Your task to perform on an android device: Open calendar and show me the third week of next month Image 0: 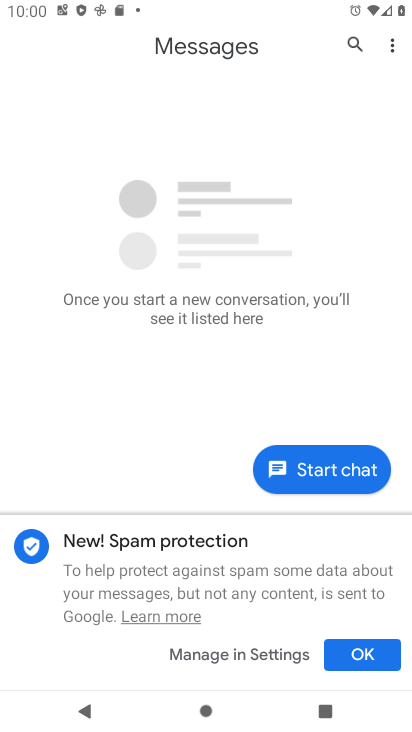
Step 0: press home button
Your task to perform on an android device: Open calendar and show me the third week of next month Image 1: 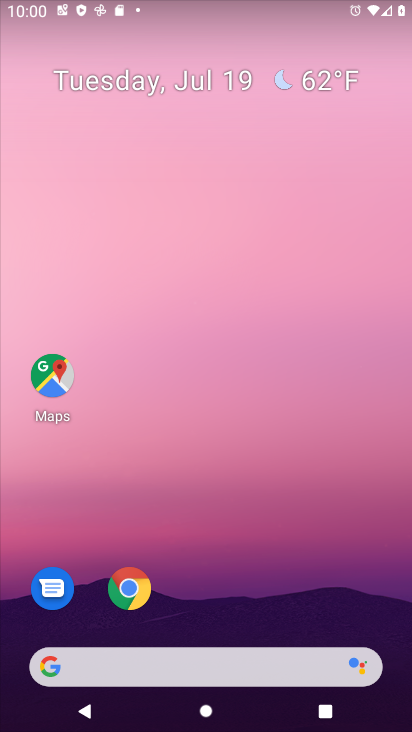
Step 1: drag from (345, 560) to (297, 98)
Your task to perform on an android device: Open calendar and show me the third week of next month Image 2: 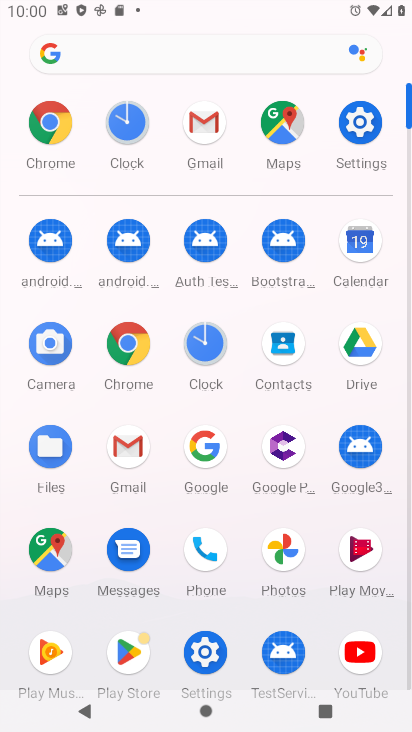
Step 2: click (368, 260)
Your task to perform on an android device: Open calendar and show me the third week of next month Image 3: 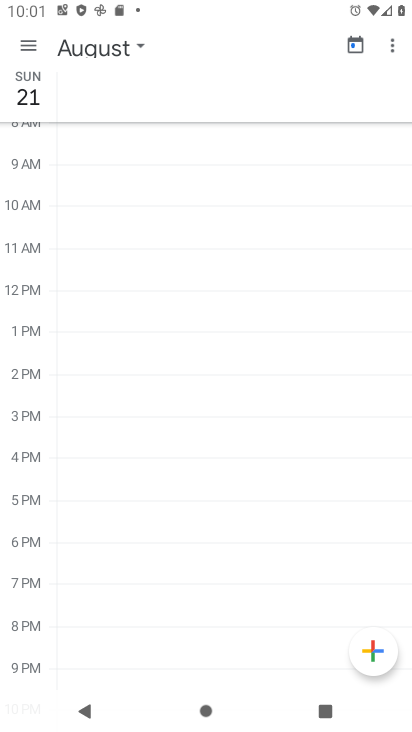
Step 3: click (101, 52)
Your task to perform on an android device: Open calendar and show me the third week of next month Image 4: 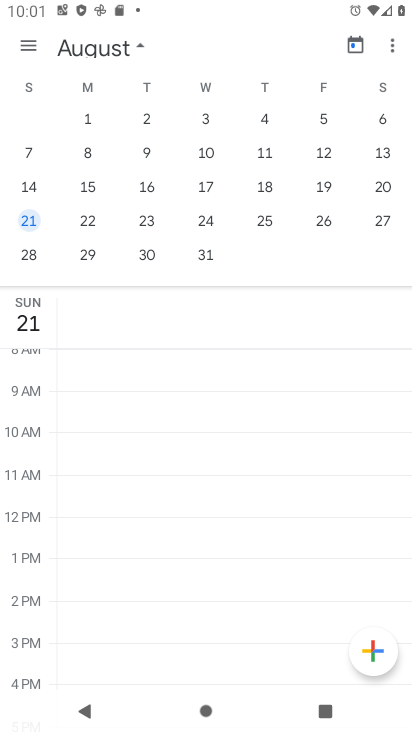
Step 4: drag from (267, 206) to (12, 10)
Your task to perform on an android device: Open calendar and show me the third week of next month Image 5: 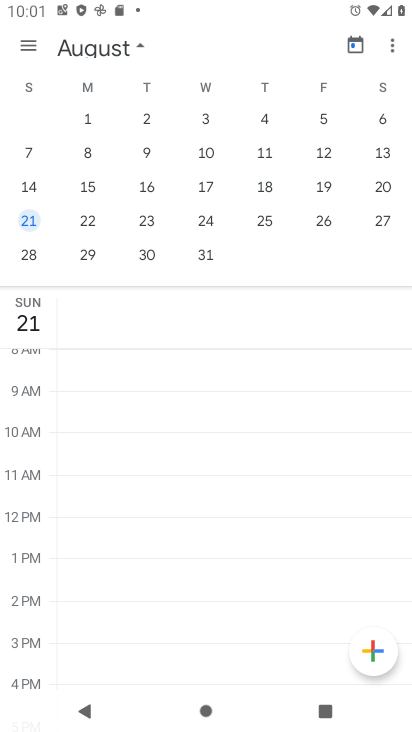
Step 5: click (32, 225)
Your task to perform on an android device: Open calendar and show me the third week of next month Image 6: 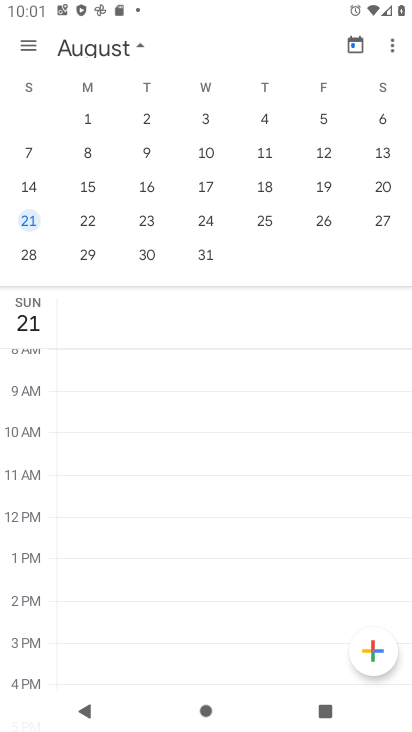
Step 6: task complete